Your task to perform on an android device: turn pop-ups off in chrome Image 0: 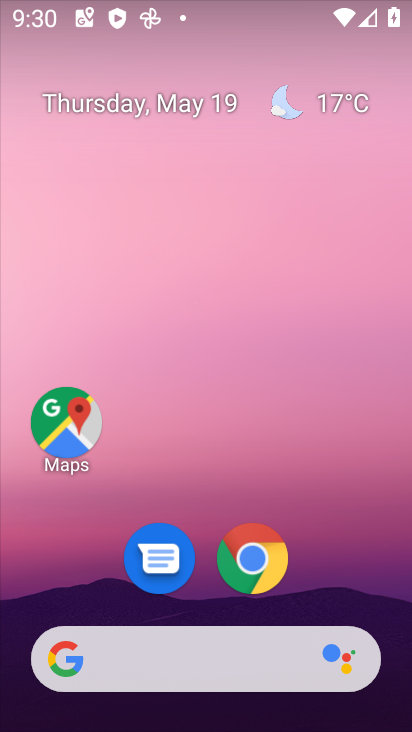
Step 0: click (256, 559)
Your task to perform on an android device: turn pop-ups off in chrome Image 1: 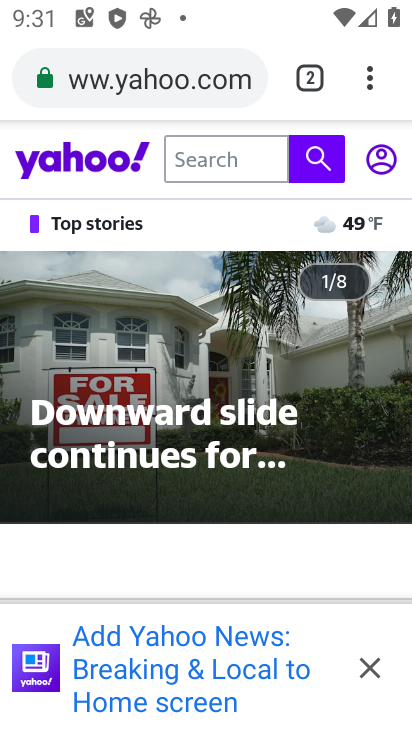
Step 1: click (371, 88)
Your task to perform on an android device: turn pop-ups off in chrome Image 2: 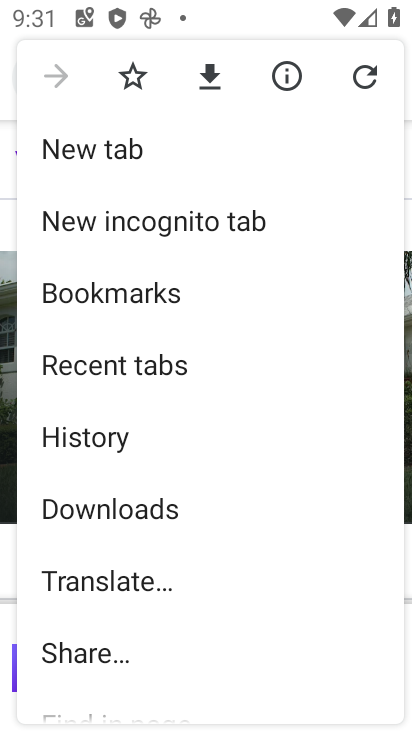
Step 2: drag from (165, 640) to (165, 366)
Your task to perform on an android device: turn pop-ups off in chrome Image 3: 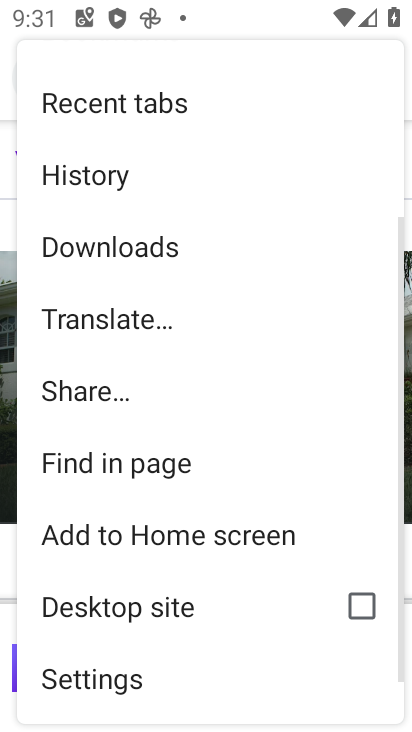
Step 3: click (125, 673)
Your task to perform on an android device: turn pop-ups off in chrome Image 4: 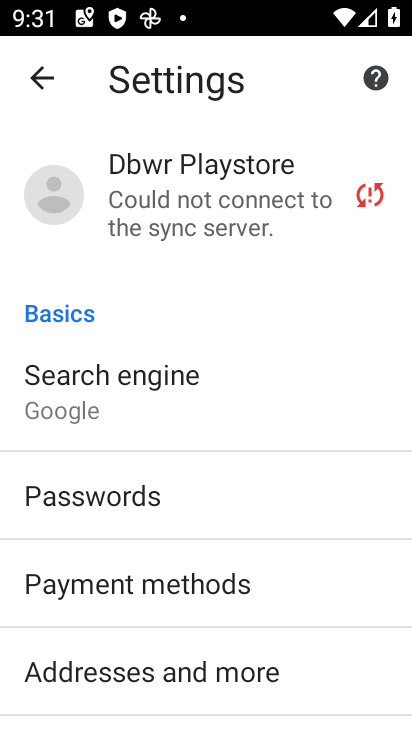
Step 4: drag from (170, 659) to (199, 376)
Your task to perform on an android device: turn pop-ups off in chrome Image 5: 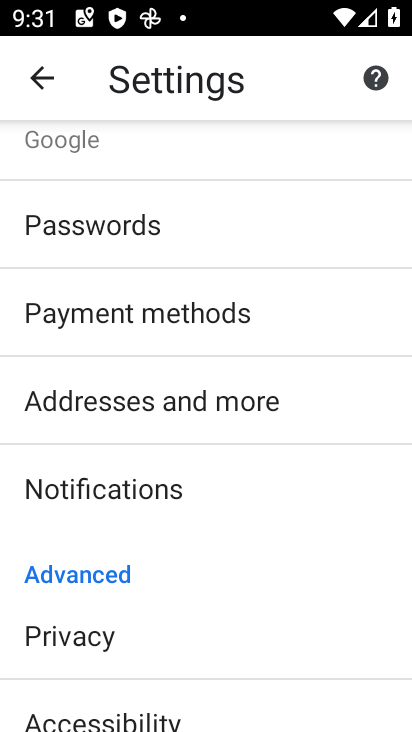
Step 5: drag from (165, 640) to (188, 388)
Your task to perform on an android device: turn pop-ups off in chrome Image 6: 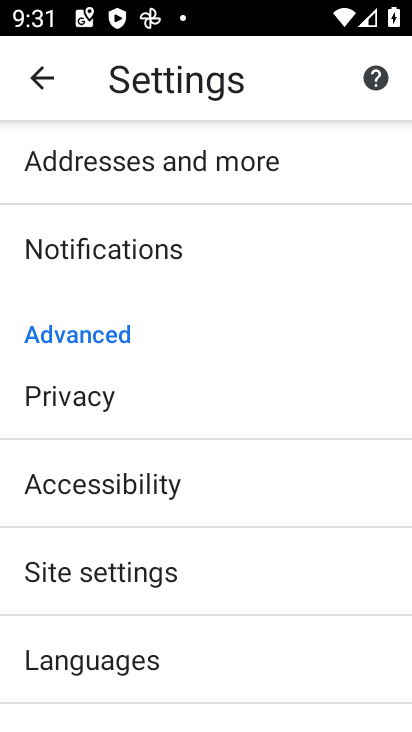
Step 6: click (99, 570)
Your task to perform on an android device: turn pop-ups off in chrome Image 7: 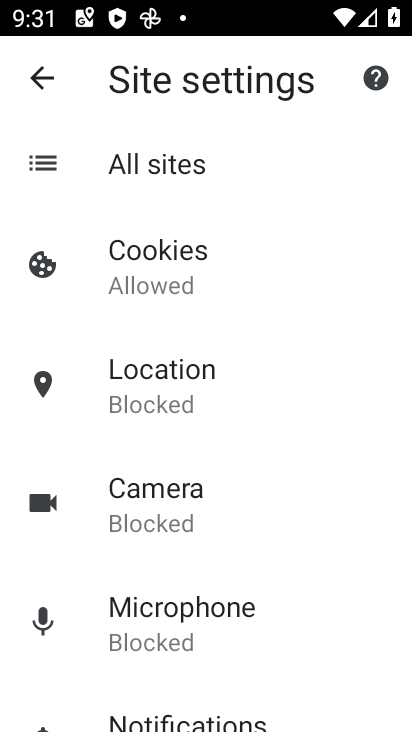
Step 7: drag from (201, 663) to (200, 349)
Your task to perform on an android device: turn pop-ups off in chrome Image 8: 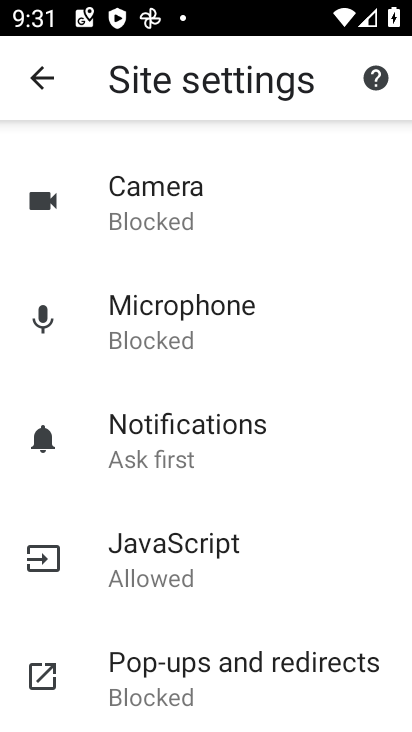
Step 8: click (188, 658)
Your task to perform on an android device: turn pop-ups off in chrome Image 9: 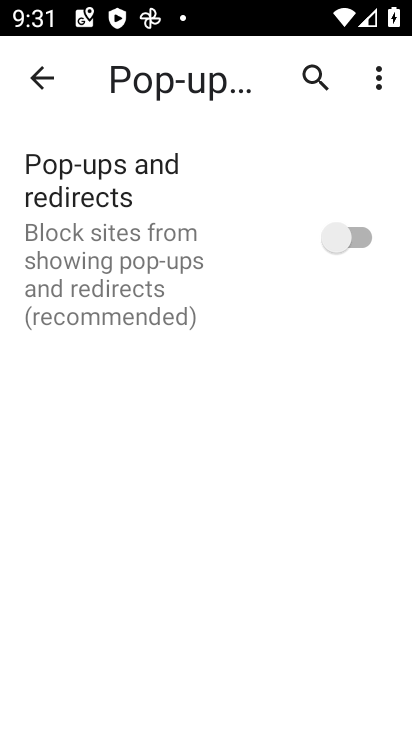
Step 9: task complete